Your task to perform on an android device: turn smart compose on in the gmail app Image 0: 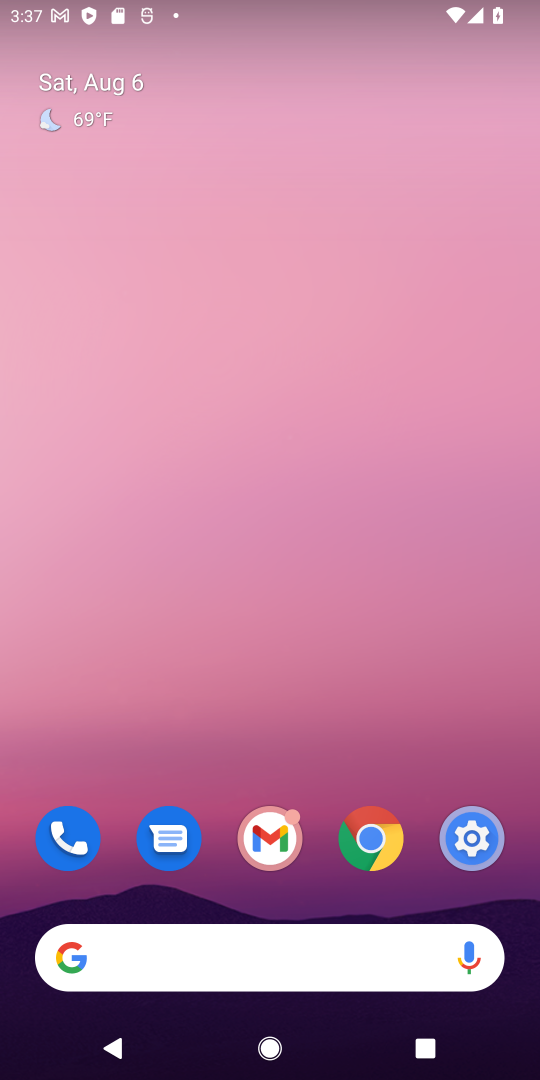
Step 0: press home button
Your task to perform on an android device: turn smart compose on in the gmail app Image 1: 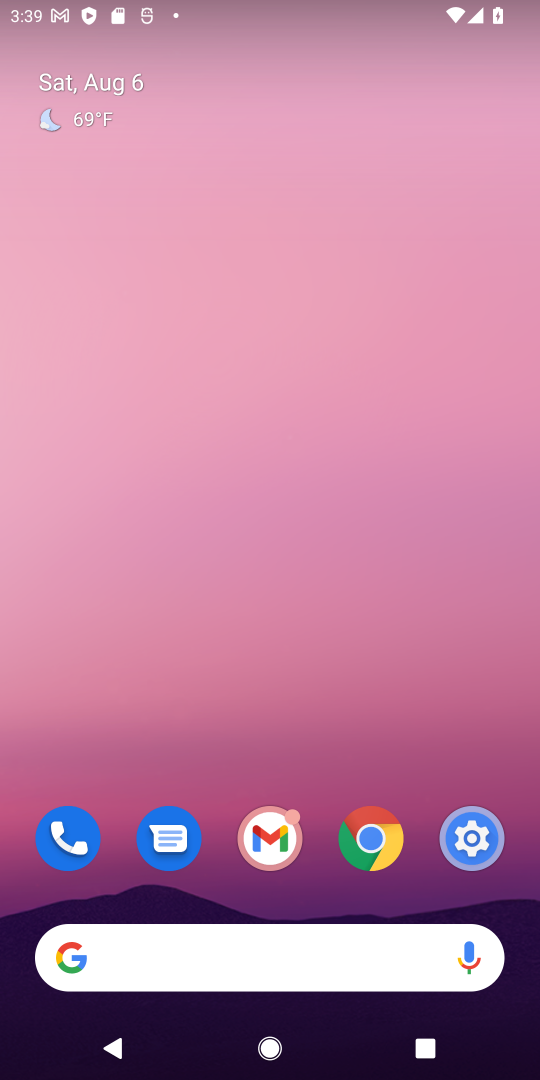
Step 1: click (254, 836)
Your task to perform on an android device: turn smart compose on in the gmail app Image 2: 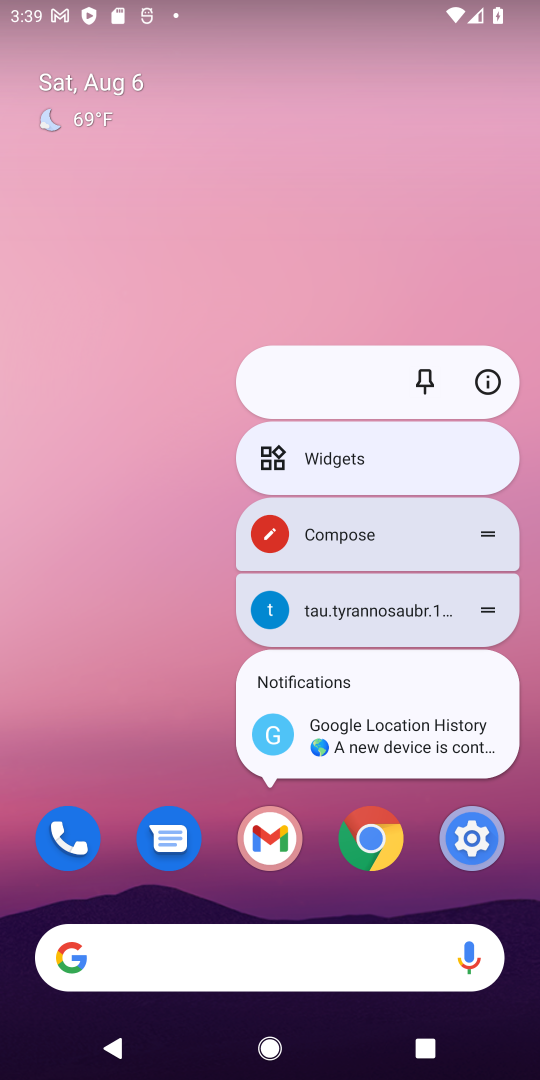
Step 2: click (254, 831)
Your task to perform on an android device: turn smart compose on in the gmail app Image 3: 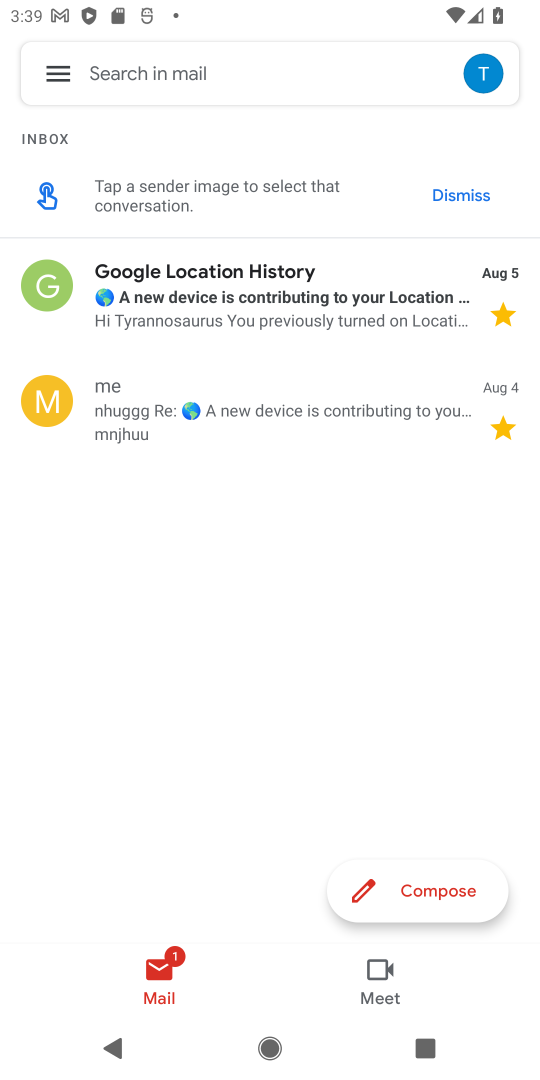
Step 3: click (54, 82)
Your task to perform on an android device: turn smart compose on in the gmail app Image 4: 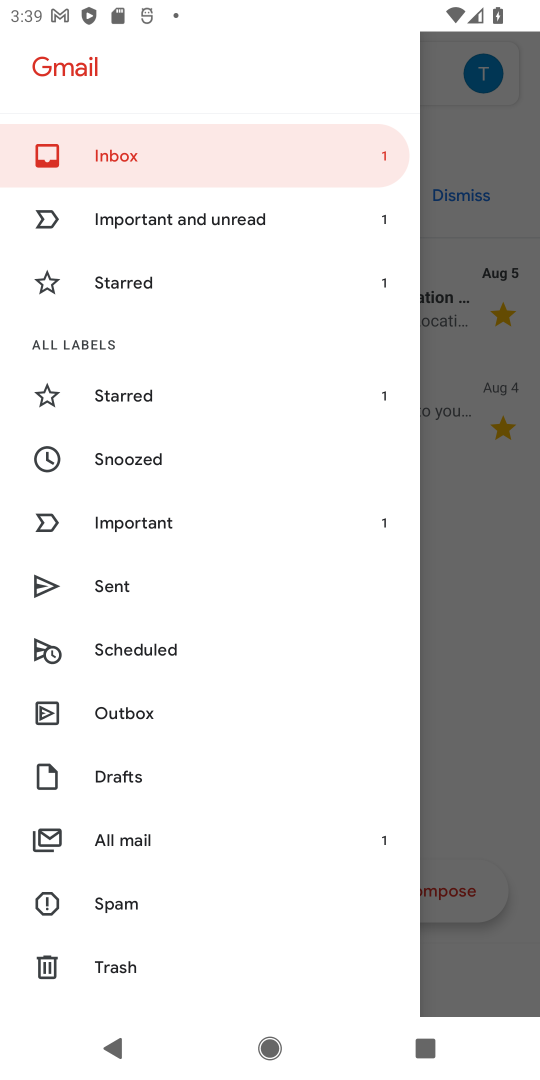
Step 4: drag from (40, 743) to (306, 63)
Your task to perform on an android device: turn smart compose on in the gmail app Image 5: 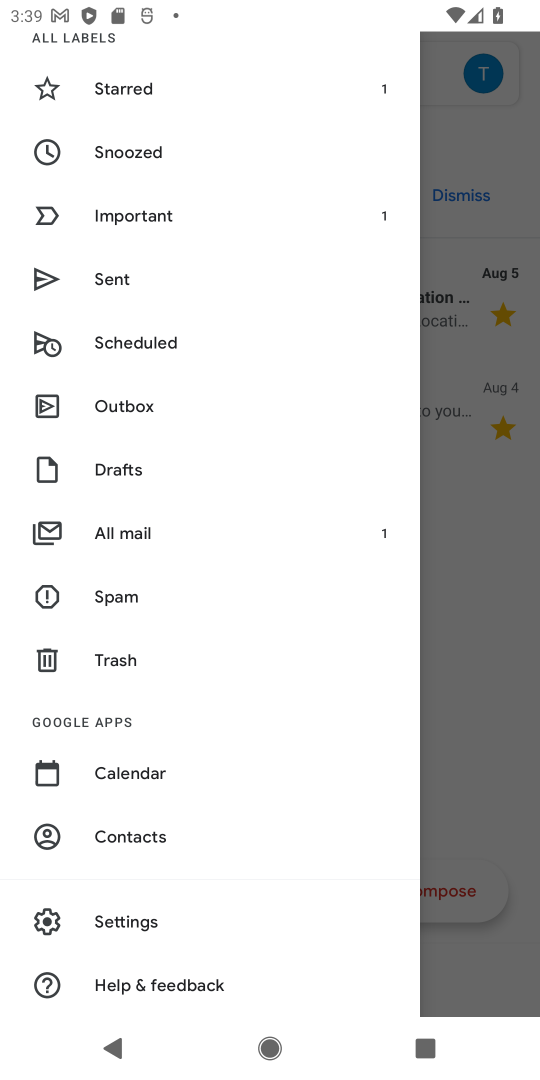
Step 5: click (147, 922)
Your task to perform on an android device: turn smart compose on in the gmail app Image 6: 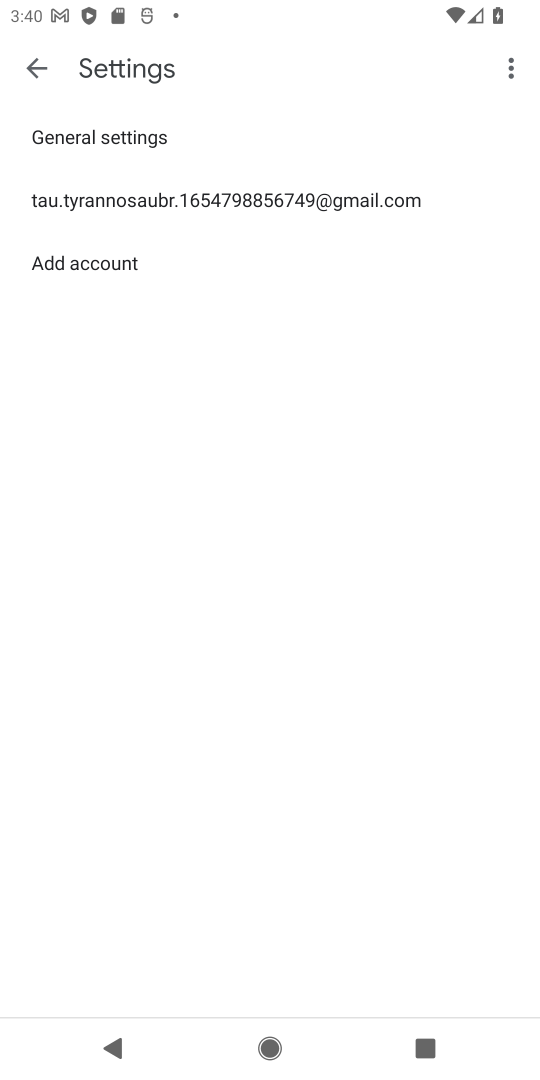
Step 6: click (210, 212)
Your task to perform on an android device: turn smart compose on in the gmail app Image 7: 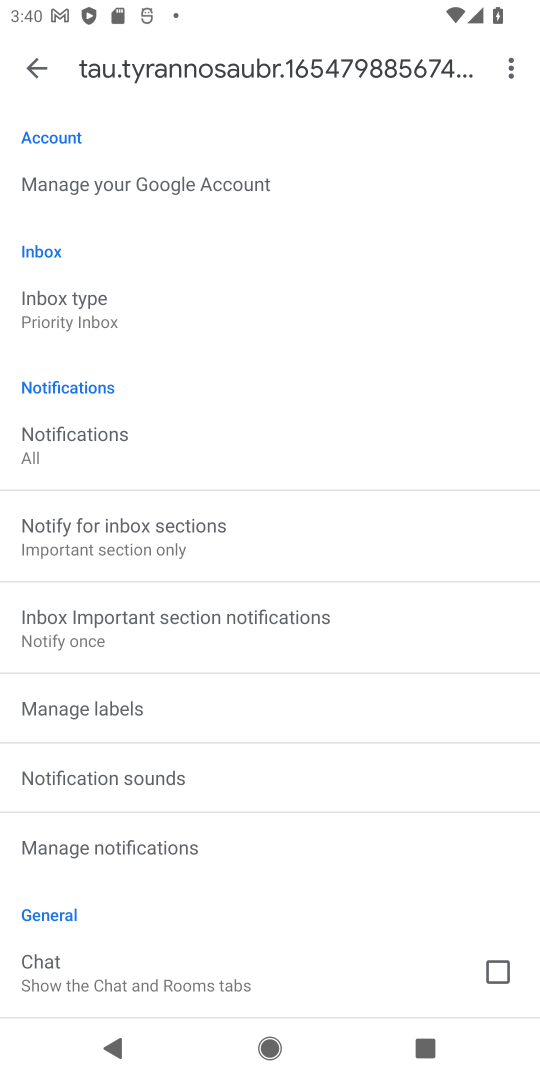
Step 7: task complete